Your task to perform on an android device: turn off picture-in-picture Image 0: 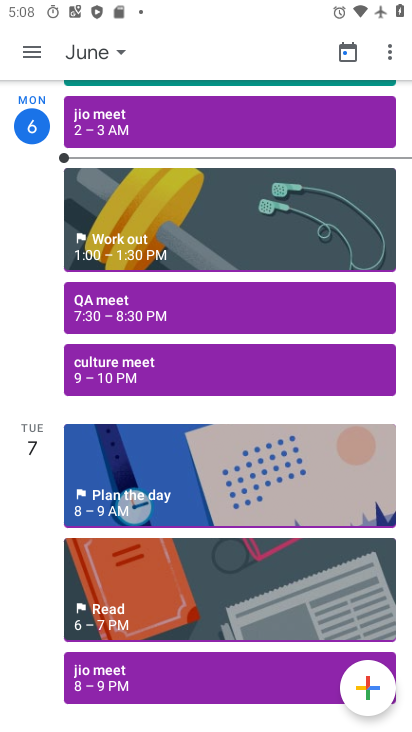
Step 0: press back button
Your task to perform on an android device: turn off picture-in-picture Image 1: 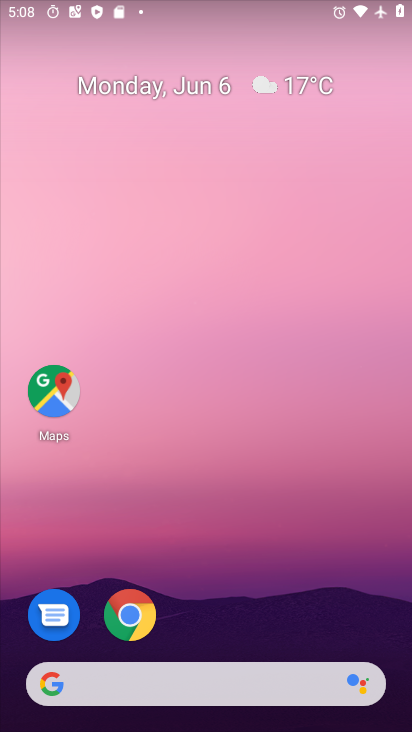
Step 1: drag from (216, 570) to (166, 26)
Your task to perform on an android device: turn off picture-in-picture Image 2: 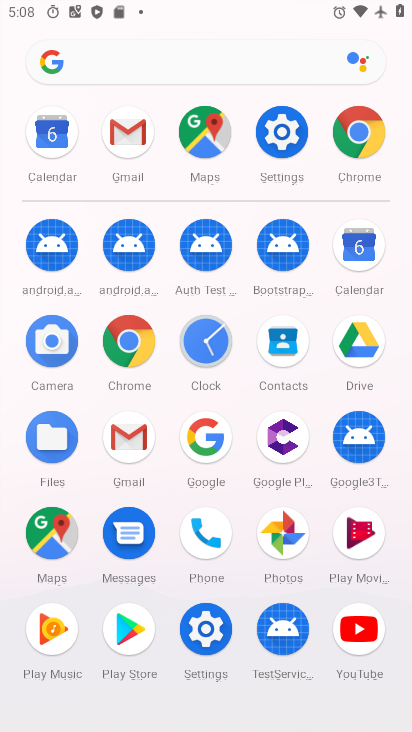
Step 2: click (203, 629)
Your task to perform on an android device: turn off picture-in-picture Image 3: 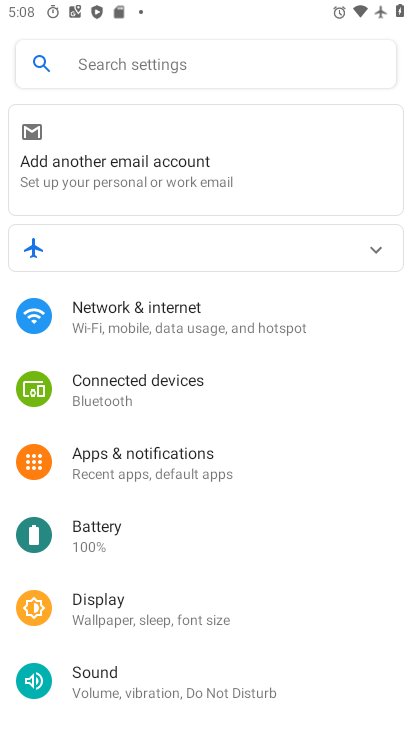
Step 3: drag from (221, 591) to (249, 211)
Your task to perform on an android device: turn off picture-in-picture Image 4: 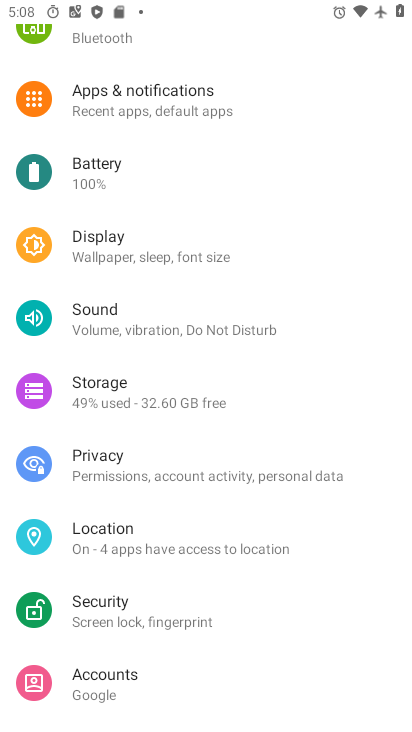
Step 4: drag from (257, 573) to (269, 204)
Your task to perform on an android device: turn off picture-in-picture Image 5: 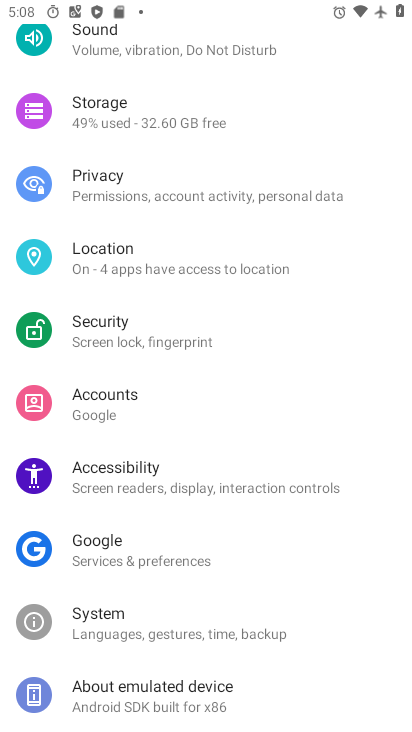
Step 5: drag from (268, 166) to (250, 594)
Your task to perform on an android device: turn off picture-in-picture Image 6: 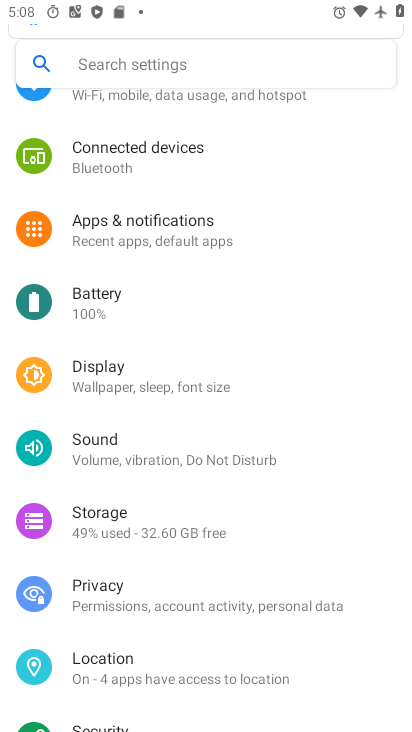
Step 6: drag from (285, 181) to (285, 486)
Your task to perform on an android device: turn off picture-in-picture Image 7: 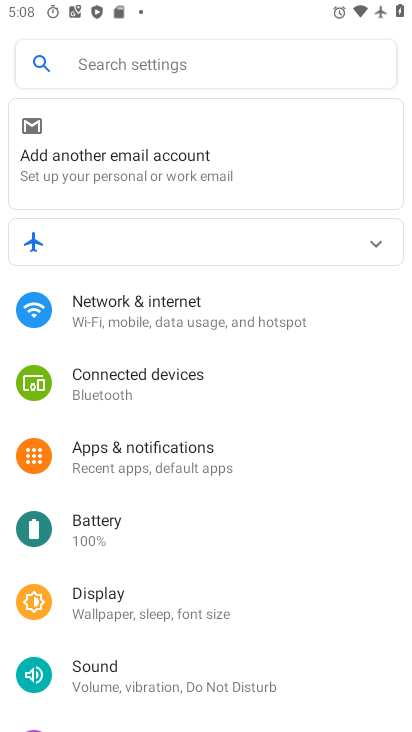
Step 7: drag from (282, 621) to (279, 263)
Your task to perform on an android device: turn off picture-in-picture Image 8: 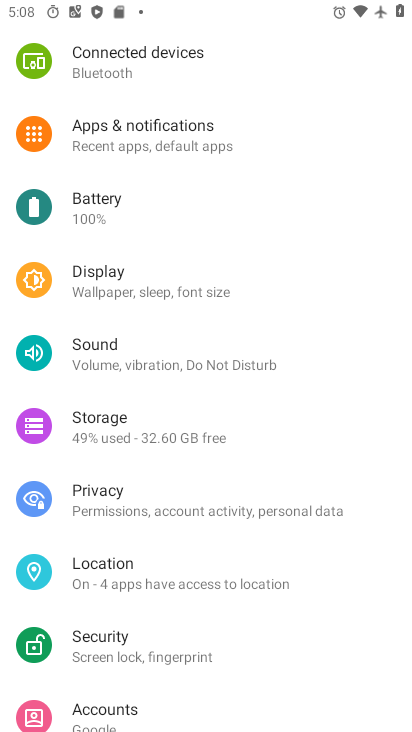
Step 8: click (186, 142)
Your task to perform on an android device: turn off picture-in-picture Image 9: 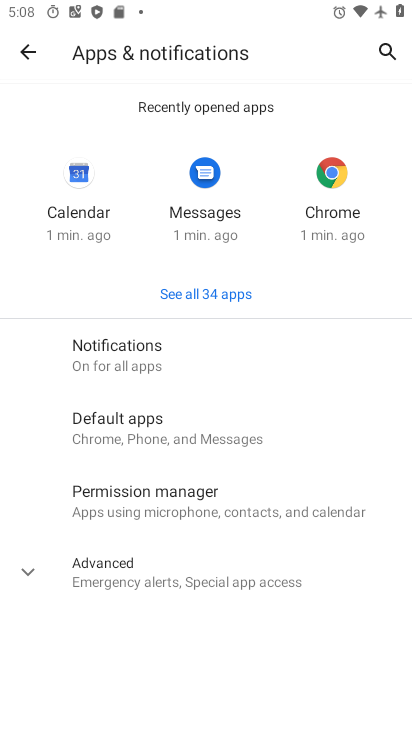
Step 9: click (191, 365)
Your task to perform on an android device: turn off picture-in-picture Image 10: 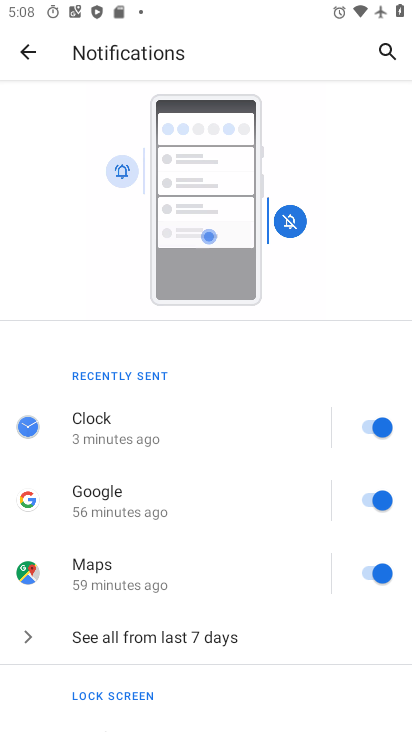
Step 10: click (27, 55)
Your task to perform on an android device: turn off picture-in-picture Image 11: 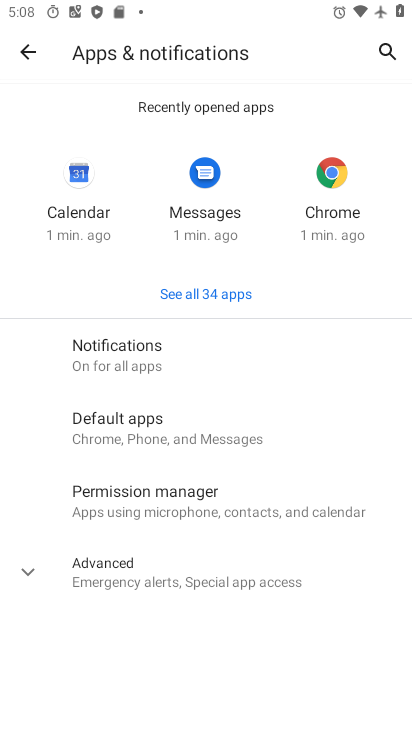
Step 11: click (160, 583)
Your task to perform on an android device: turn off picture-in-picture Image 12: 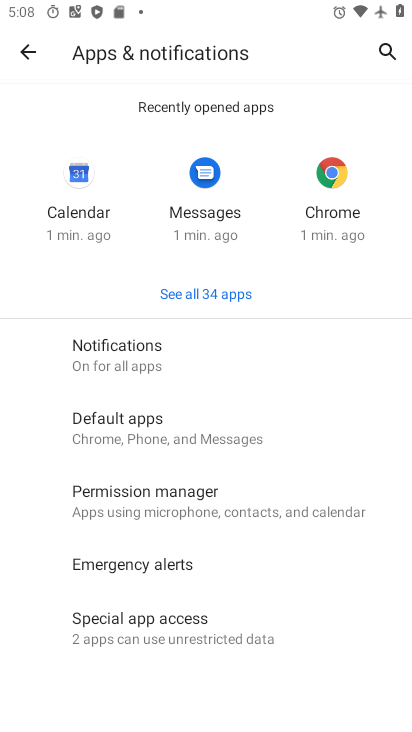
Step 12: drag from (273, 620) to (285, 318)
Your task to perform on an android device: turn off picture-in-picture Image 13: 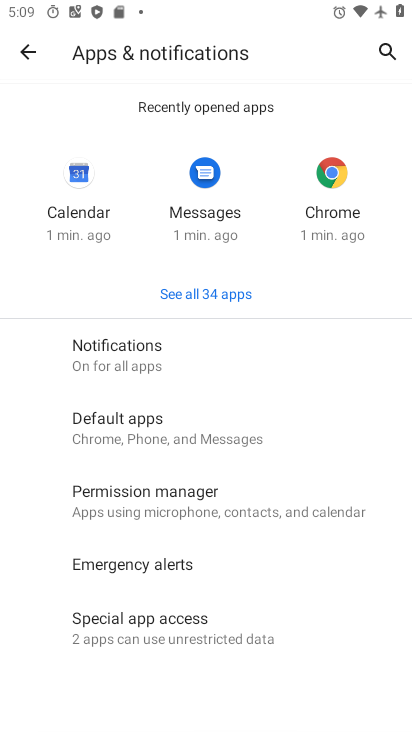
Step 13: click (157, 638)
Your task to perform on an android device: turn off picture-in-picture Image 14: 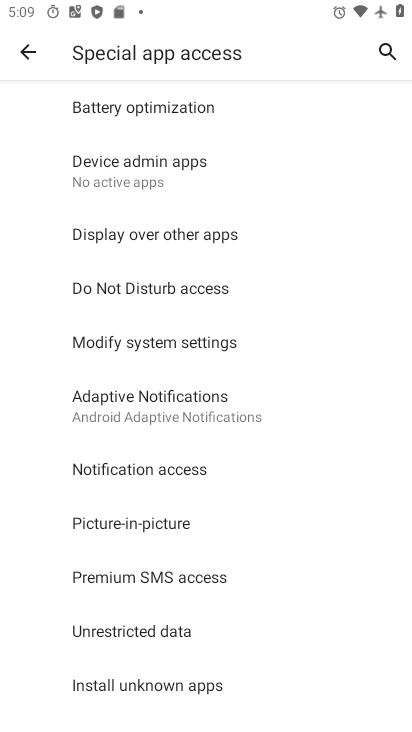
Step 14: click (150, 515)
Your task to perform on an android device: turn off picture-in-picture Image 15: 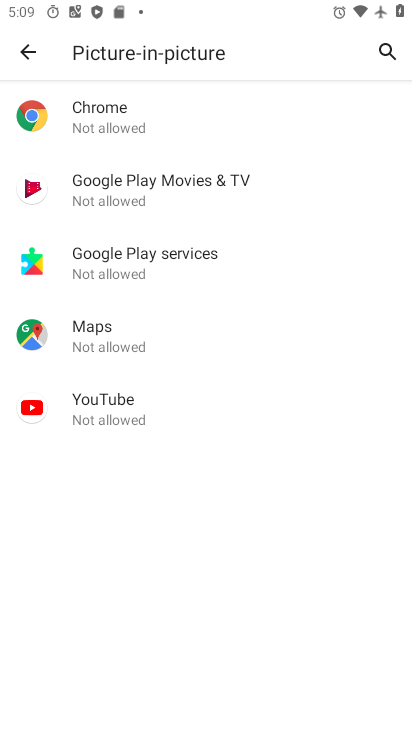
Step 15: task complete